Your task to perform on an android device: change the clock display to show seconds Image 0: 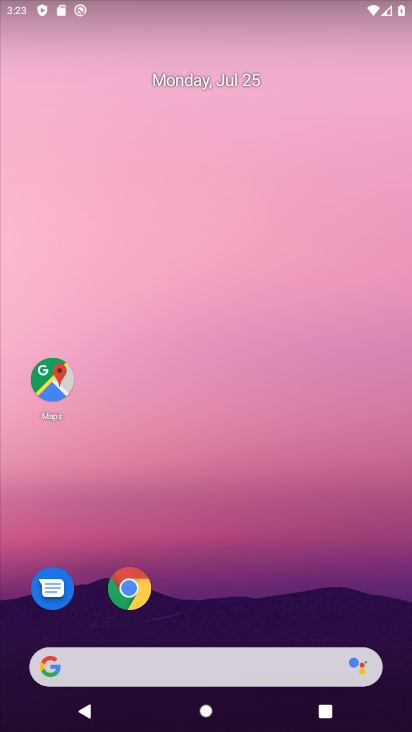
Step 0: press home button
Your task to perform on an android device: change the clock display to show seconds Image 1: 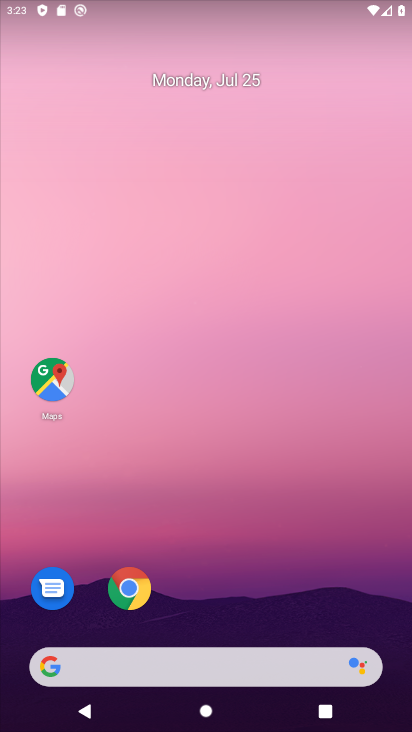
Step 1: drag from (263, 582) to (88, 41)
Your task to perform on an android device: change the clock display to show seconds Image 2: 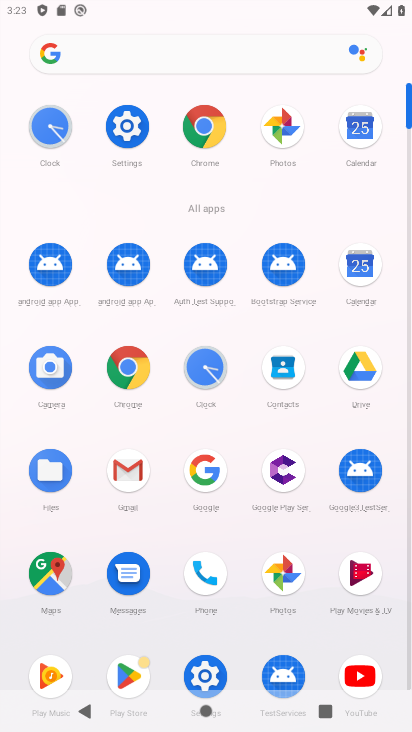
Step 2: click (200, 379)
Your task to perform on an android device: change the clock display to show seconds Image 3: 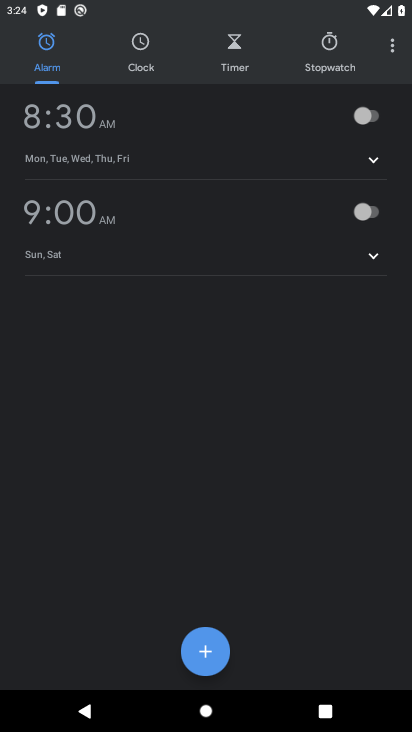
Step 3: click (388, 43)
Your task to perform on an android device: change the clock display to show seconds Image 4: 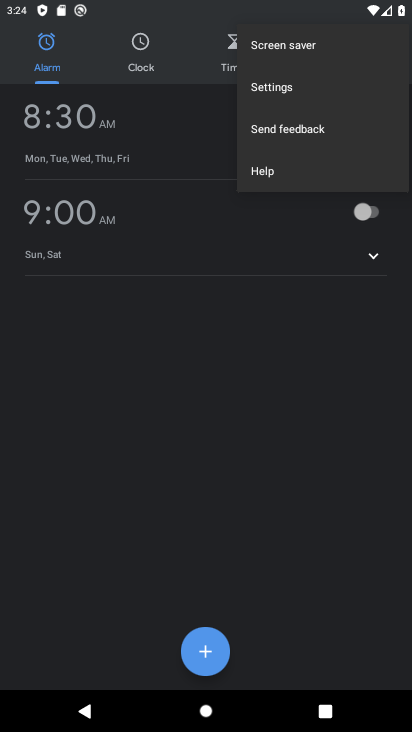
Step 4: click (297, 84)
Your task to perform on an android device: change the clock display to show seconds Image 5: 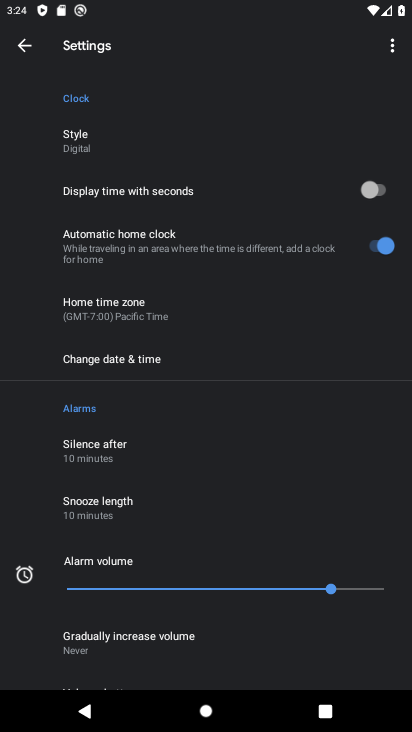
Step 5: click (369, 200)
Your task to perform on an android device: change the clock display to show seconds Image 6: 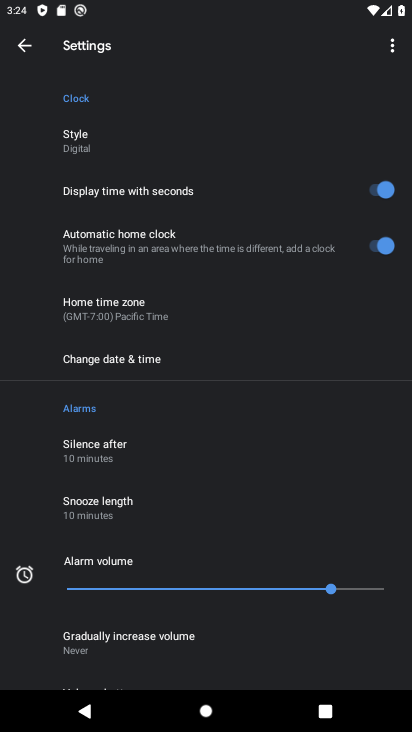
Step 6: task complete